Your task to perform on an android device: Open settings Image 0: 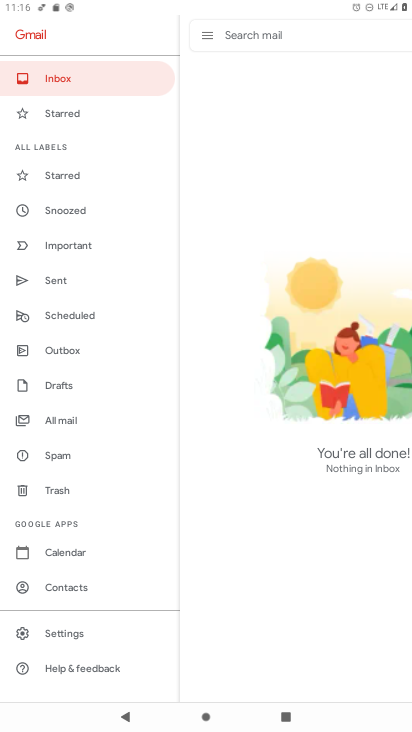
Step 0: press home button
Your task to perform on an android device: Open settings Image 1: 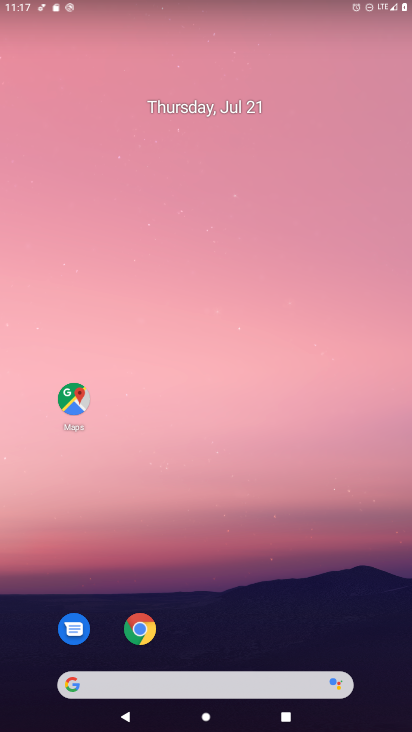
Step 1: drag from (255, 435) to (245, 28)
Your task to perform on an android device: Open settings Image 2: 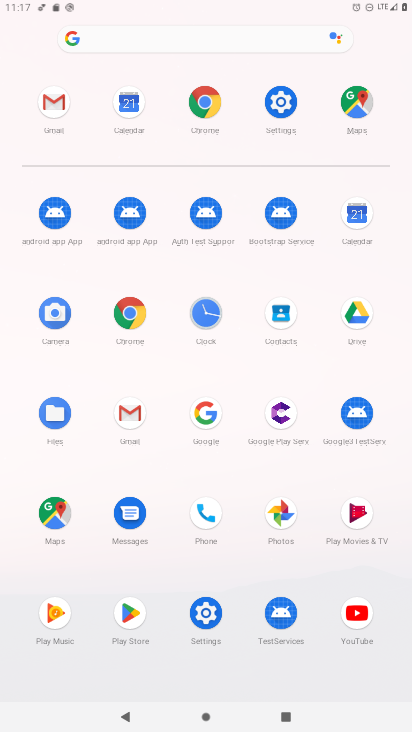
Step 2: click (281, 104)
Your task to perform on an android device: Open settings Image 3: 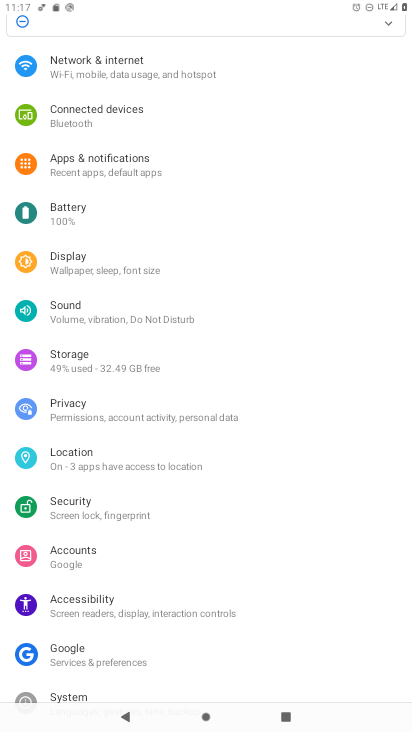
Step 3: task complete